Your task to perform on an android device: all mails in gmail Image 0: 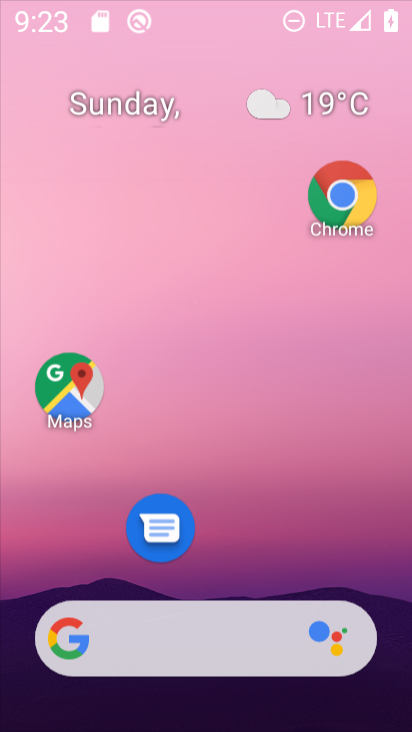
Step 0: press home button
Your task to perform on an android device: all mails in gmail Image 1: 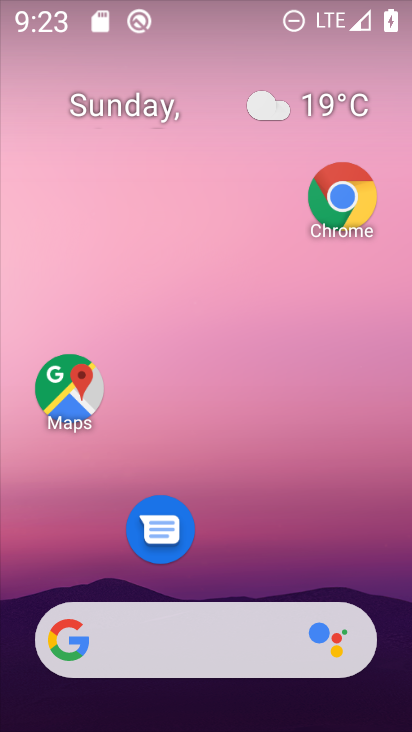
Step 1: drag from (226, 581) to (264, 22)
Your task to perform on an android device: all mails in gmail Image 2: 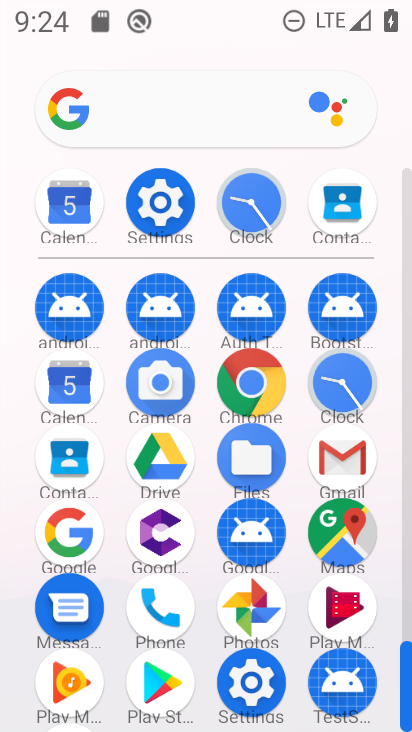
Step 2: click (336, 444)
Your task to perform on an android device: all mails in gmail Image 3: 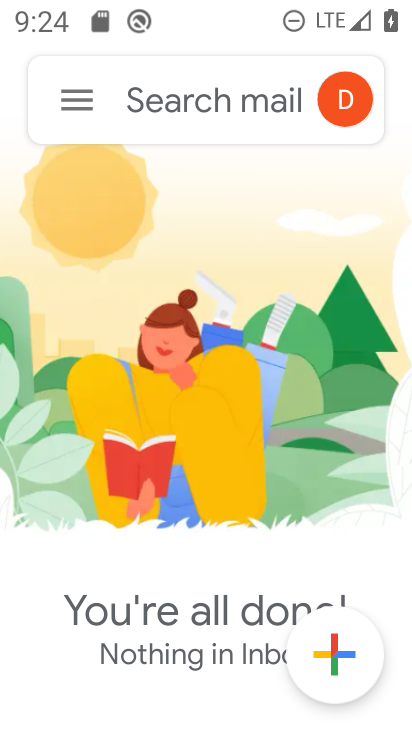
Step 3: click (80, 96)
Your task to perform on an android device: all mails in gmail Image 4: 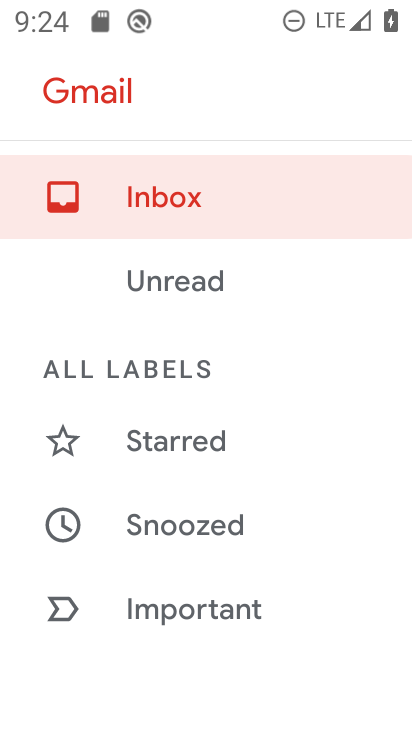
Step 4: drag from (271, 613) to (273, 66)
Your task to perform on an android device: all mails in gmail Image 5: 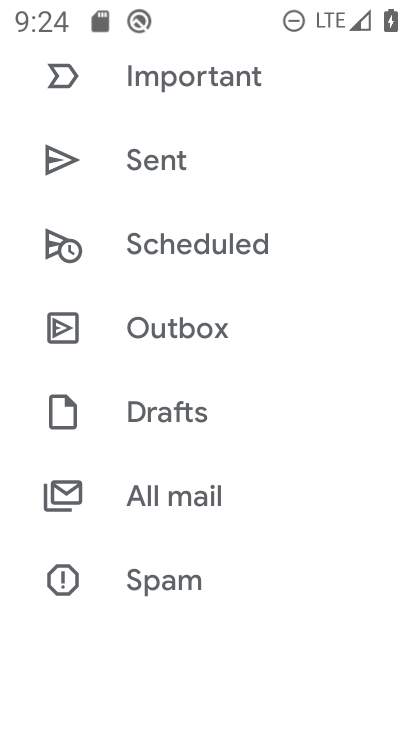
Step 5: click (243, 491)
Your task to perform on an android device: all mails in gmail Image 6: 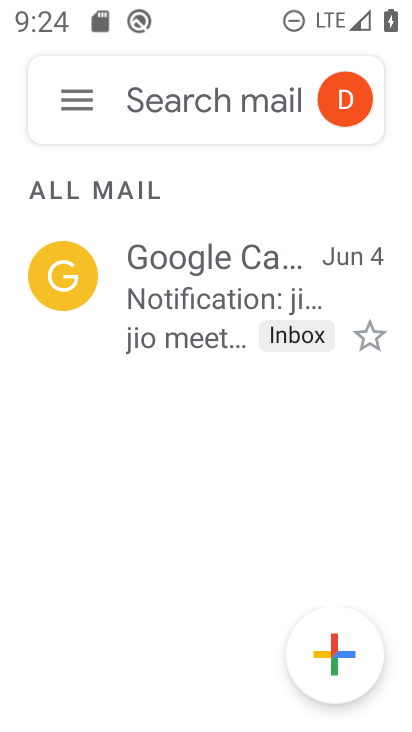
Step 6: task complete